Your task to perform on an android device: stop showing notifications on the lock screen Image 0: 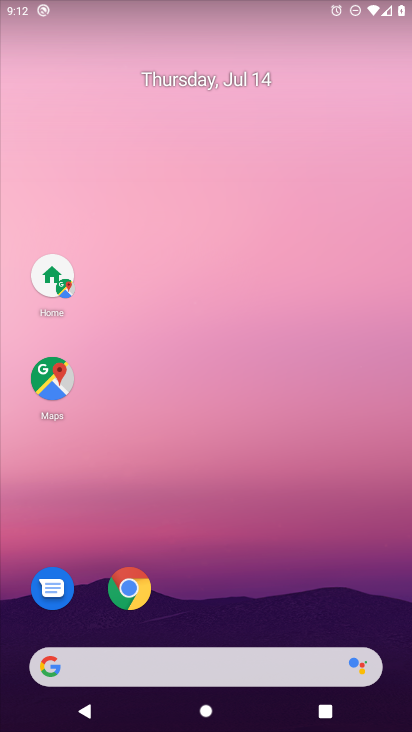
Step 0: drag from (48, 685) to (263, 133)
Your task to perform on an android device: stop showing notifications on the lock screen Image 1: 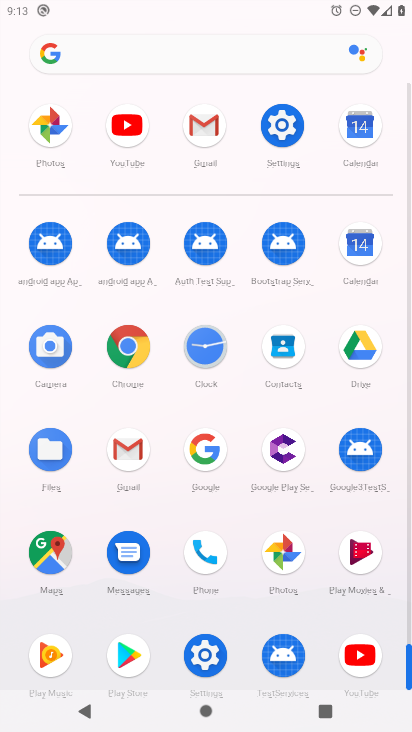
Step 1: click (231, 664)
Your task to perform on an android device: stop showing notifications on the lock screen Image 2: 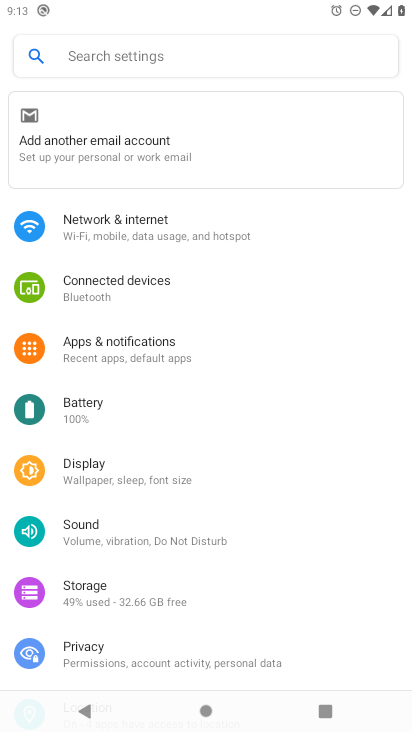
Step 2: click (103, 343)
Your task to perform on an android device: stop showing notifications on the lock screen Image 3: 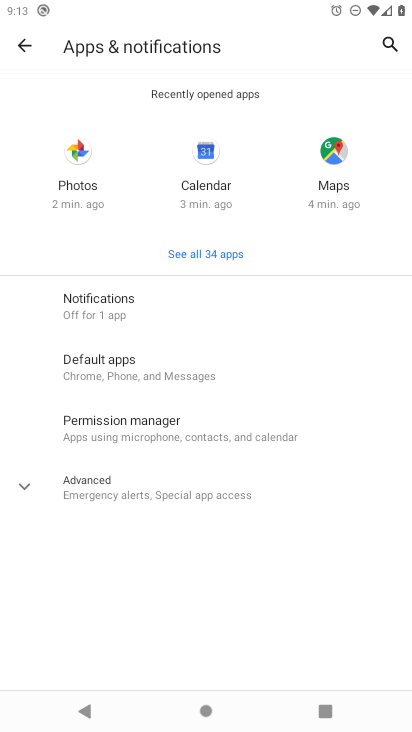
Step 3: click (119, 325)
Your task to perform on an android device: stop showing notifications on the lock screen Image 4: 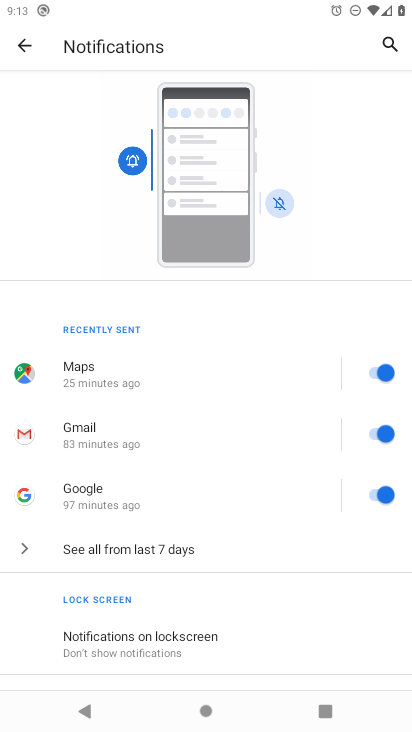
Step 4: click (108, 641)
Your task to perform on an android device: stop showing notifications on the lock screen Image 5: 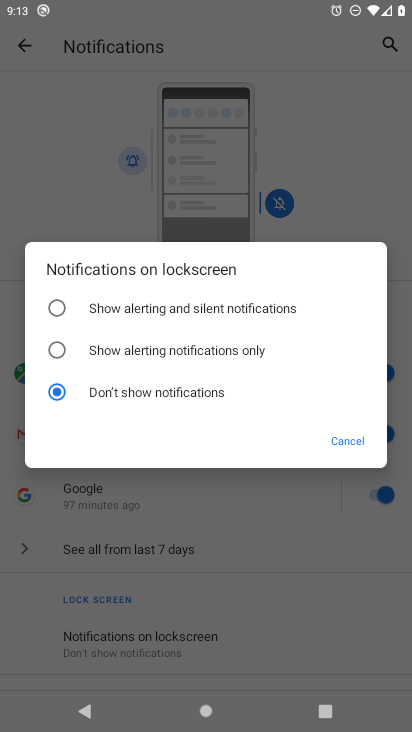
Step 5: task complete